Your task to perform on an android device: toggle wifi Image 0: 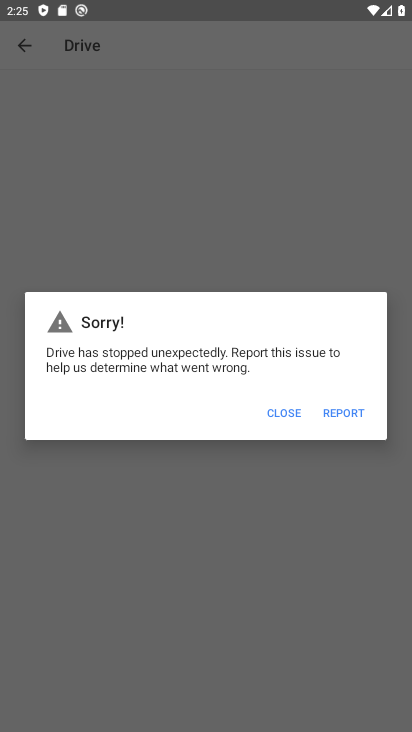
Step 0: drag from (268, 11) to (366, 728)
Your task to perform on an android device: toggle wifi Image 1: 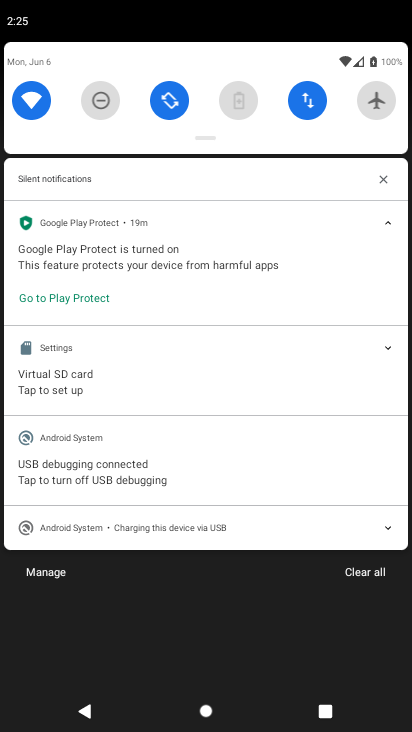
Step 1: click (33, 92)
Your task to perform on an android device: toggle wifi Image 2: 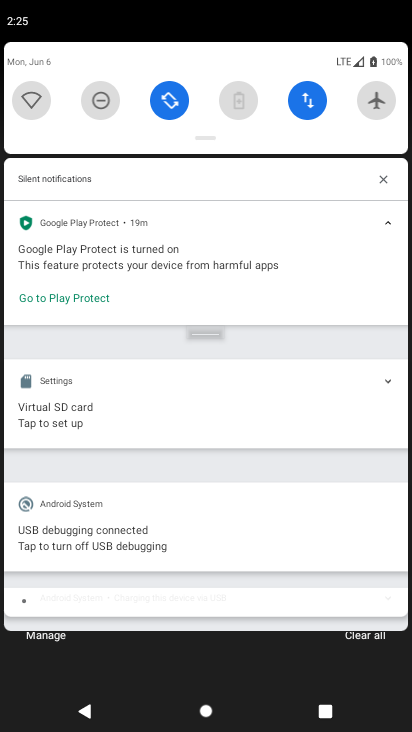
Step 2: task complete